Your task to perform on an android device: Open calendar and show me the fourth week of next month Image 0: 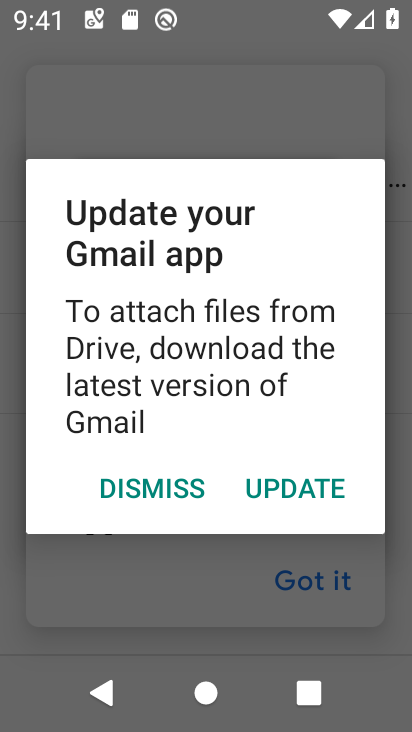
Step 0: press home button
Your task to perform on an android device: Open calendar and show me the fourth week of next month Image 1: 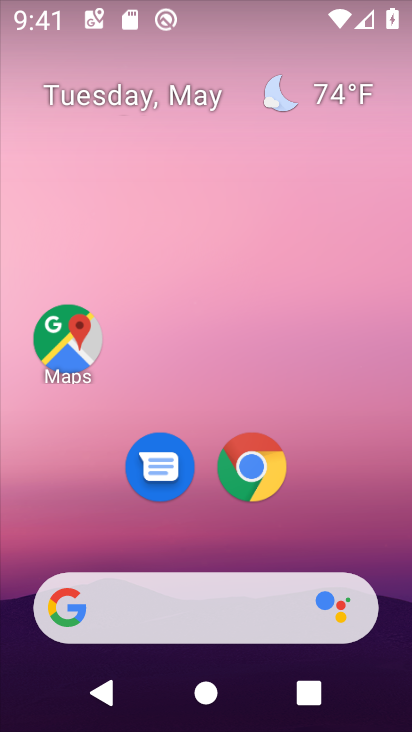
Step 1: drag from (309, 500) to (346, 159)
Your task to perform on an android device: Open calendar and show me the fourth week of next month Image 2: 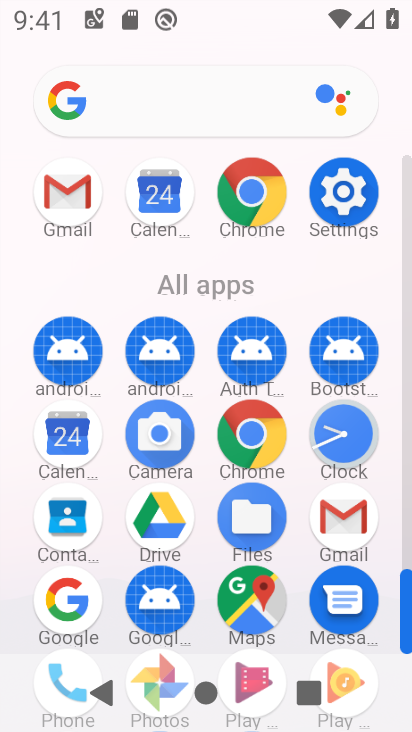
Step 2: click (66, 437)
Your task to perform on an android device: Open calendar and show me the fourth week of next month Image 3: 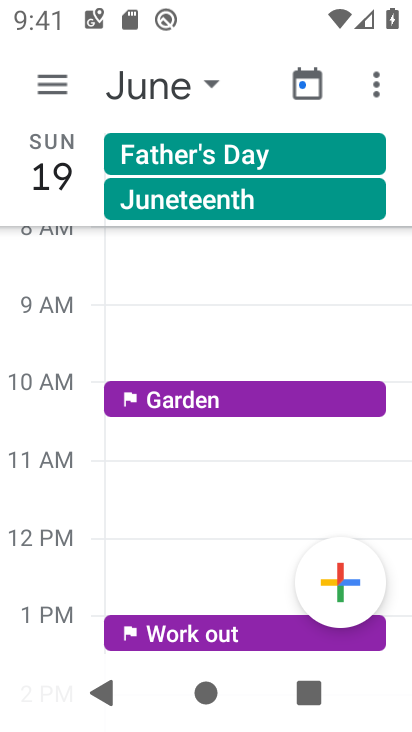
Step 3: click (120, 87)
Your task to perform on an android device: Open calendar and show me the fourth week of next month Image 4: 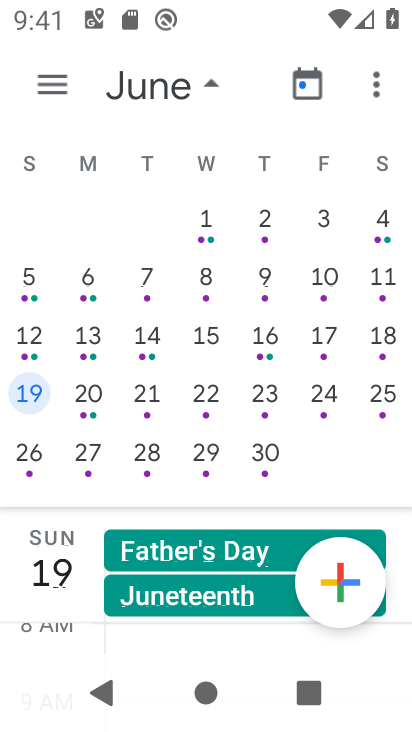
Step 4: click (30, 398)
Your task to perform on an android device: Open calendar and show me the fourth week of next month Image 5: 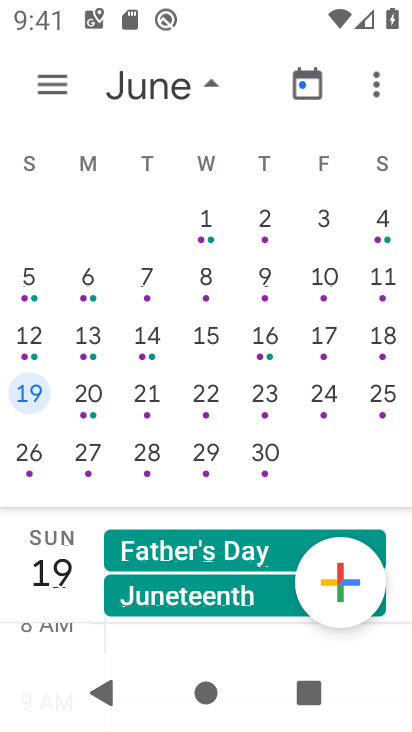
Step 5: task complete